Your task to perform on an android device: change the clock display to analog Image 0: 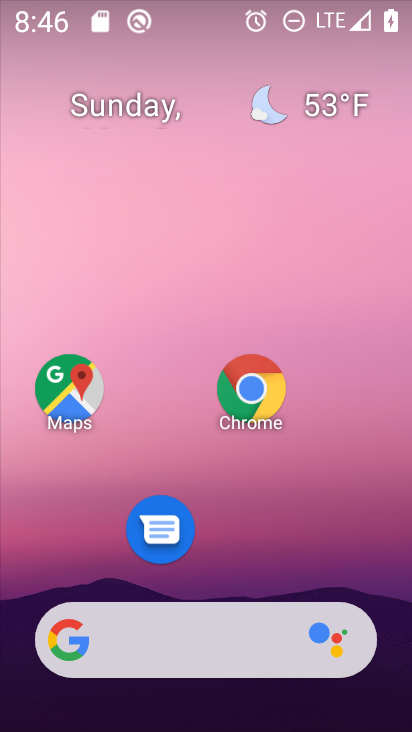
Step 0: drag from (266, 539) to (307, 11)
Your task to perform on an android device: change the clock display to analog Image 1: 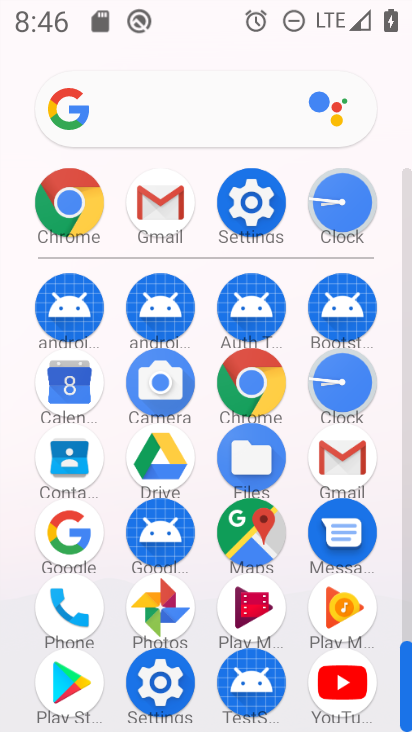
Step 1: click (349, 209)
Your task to perform on an android device: change the clock display to analog Image 2: 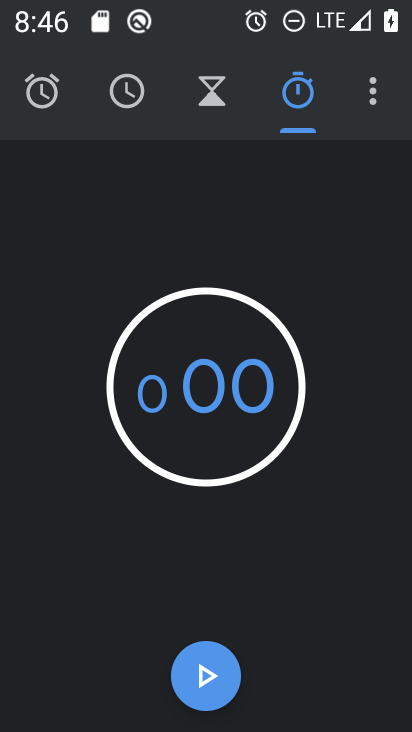
Step 2: click (379, 96)
Your task to perform on an android device: change the clock display to analog Image 3: 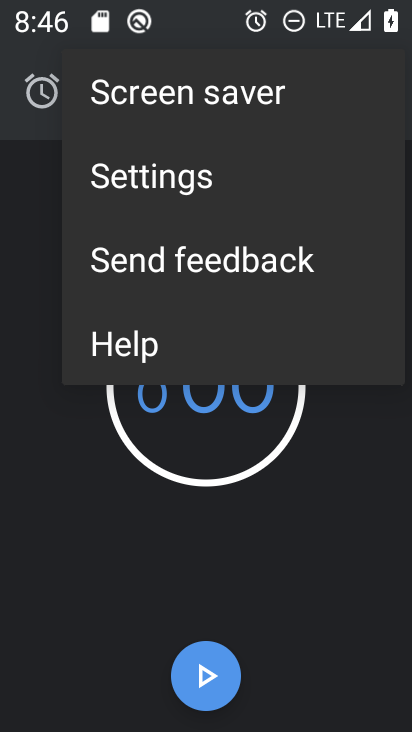
Step 3: click (156, 181)
Your task to perform on an android device: change the clock display to analog Image 4: 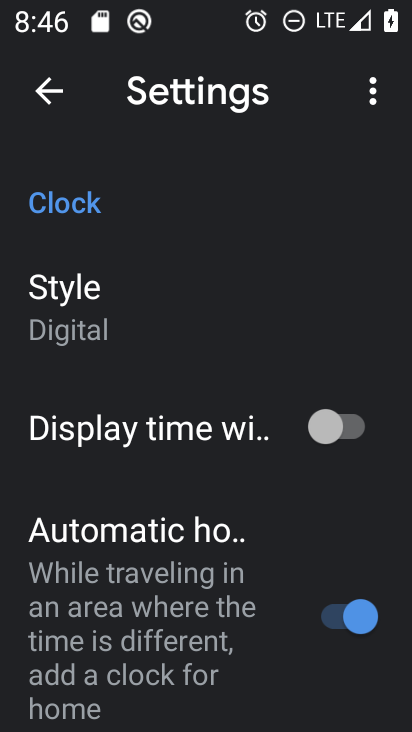
Step 4: click (86, 317)
Your task to perform on an android device: change the clock display to analog Image 5: 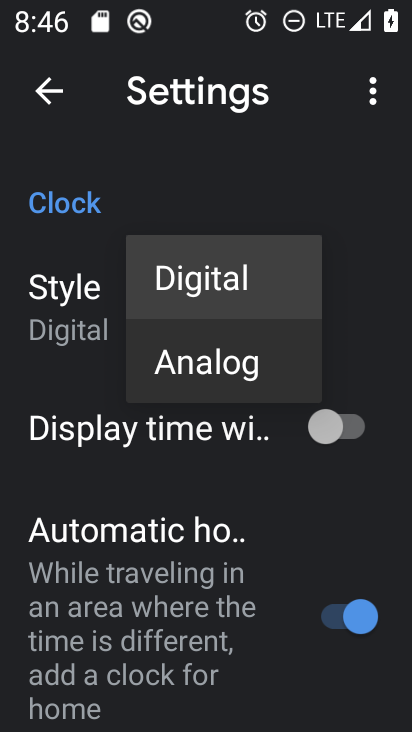
Step 5: click (179, 367)
Your task to perform on an android device: change the clock display to analog Image 6: 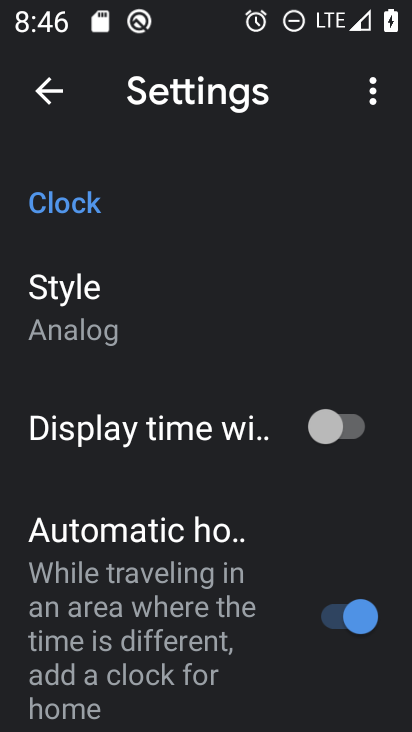
Step 6: task complete